Your task to perform on an android device: turn off location Image 0: 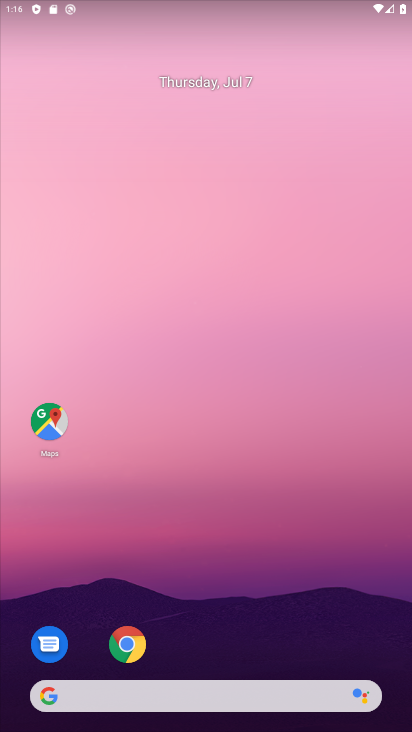
Step 0: drag from (218, 652) to (168, 191)
Your task to perform on an android device: turn off location Image 1: 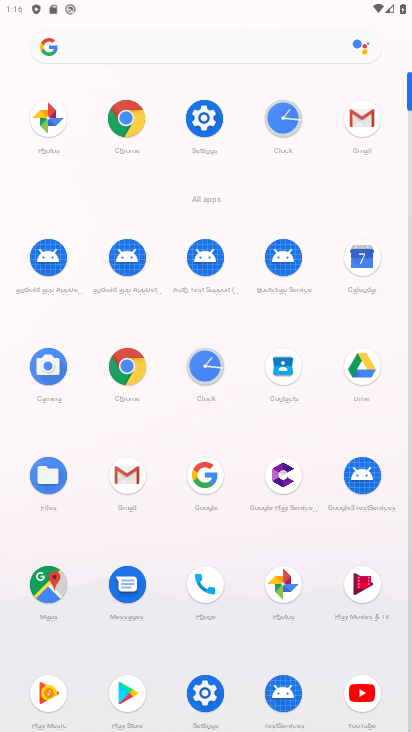
Step 1: click (208, 123)
Your task to perform on an android device: turn off location Image 2: 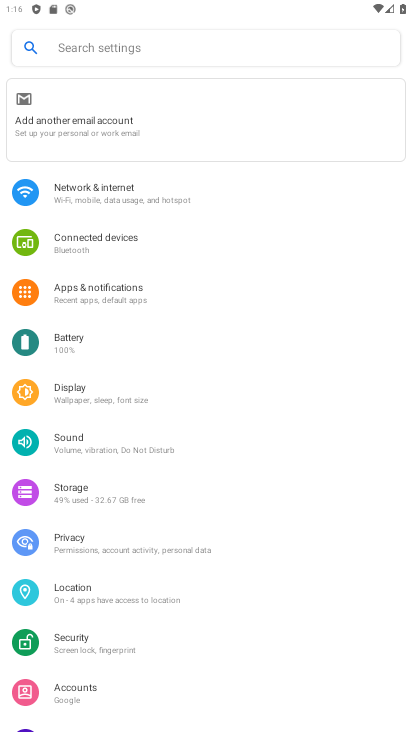
Step 2: click (102, 587)
Your task to perform on an android device: turn off location Image 3: 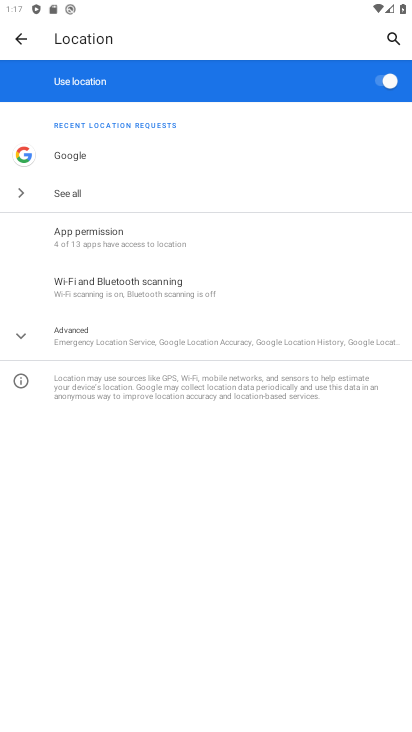
Step 3: click (396, 88)
Your task to perform on an android device: turn off location Image 4: 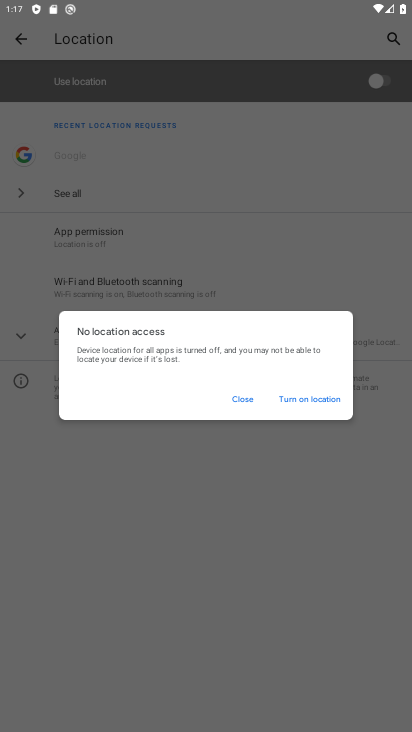
Step 4: click (249, 404)
Your task to perform on an android device: turn off location Image 5: 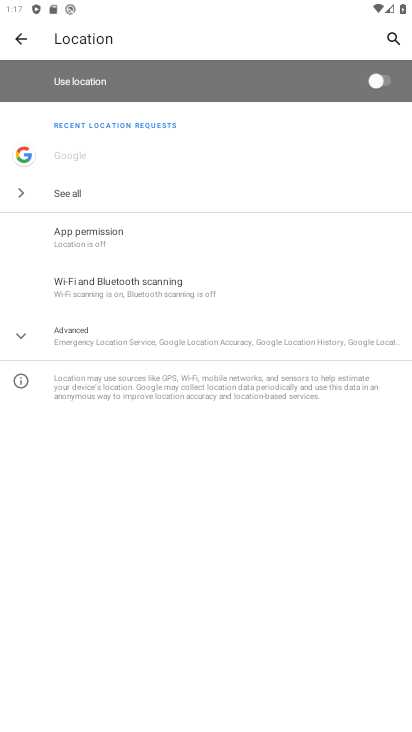
Step 5: task complete